Your task to perform on an android device: check the backup settings in the google photos Image 0: 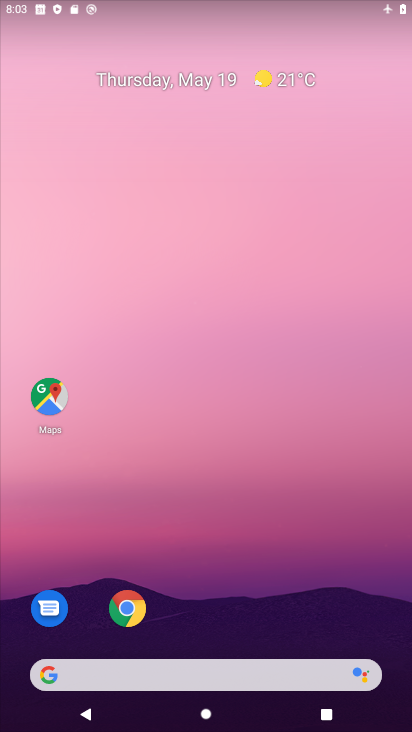
Step 0: drag from (198, 533) to (138, 131)
Your task to perform on an android device: check the backup settings in the google photos Image 1: 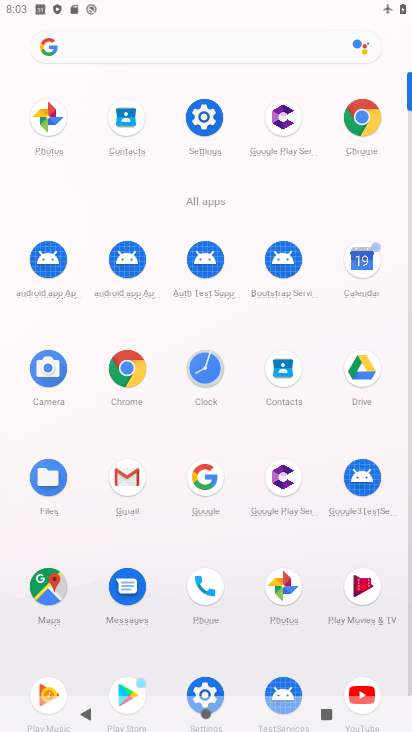
Step 1: click (46, 115)
Your task to perform on an android device: check the backup settings in the google photos Image 2: 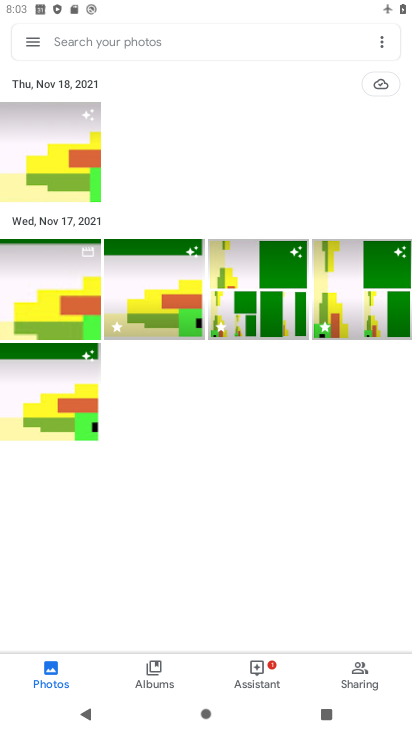
Step 2: click (29, 35)
Your task to perform on an android device: check the backup settings in the google photos Image 3: 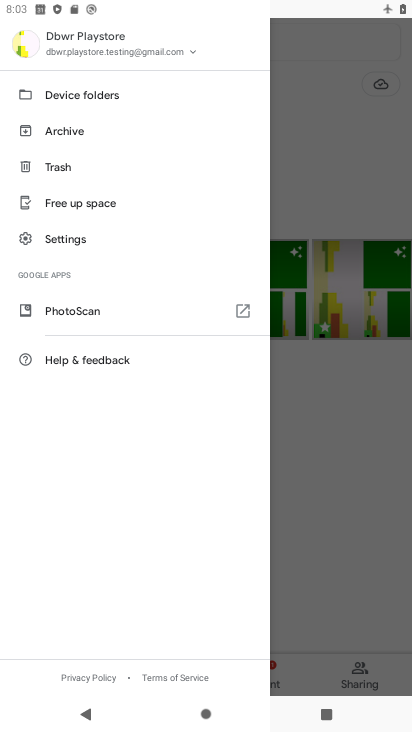
Step 3: click (63, 236)
Your task to perform on an android device: check the backup settings in the google photos Image 4: 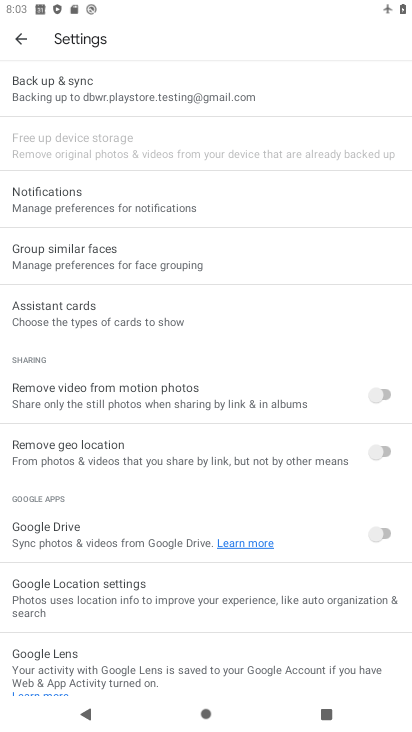
Step 4: click (46, 75)
Your task to perform on an android device: check the backup settings in the google photos Image 5: 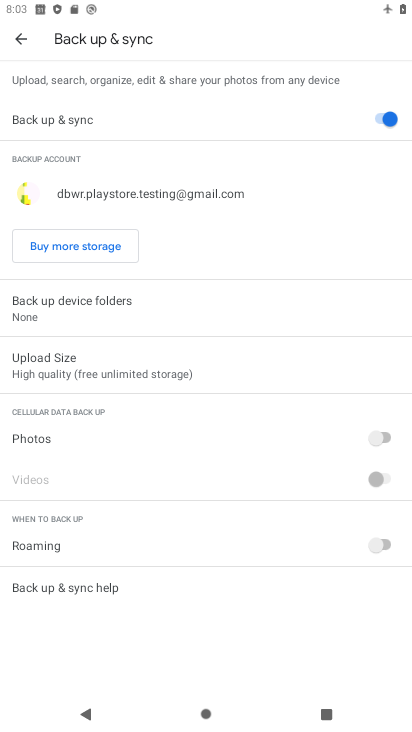
Step 5: click (93, 113)
Your task to perform on an android device: check the backup settings in the google photos Image 6: 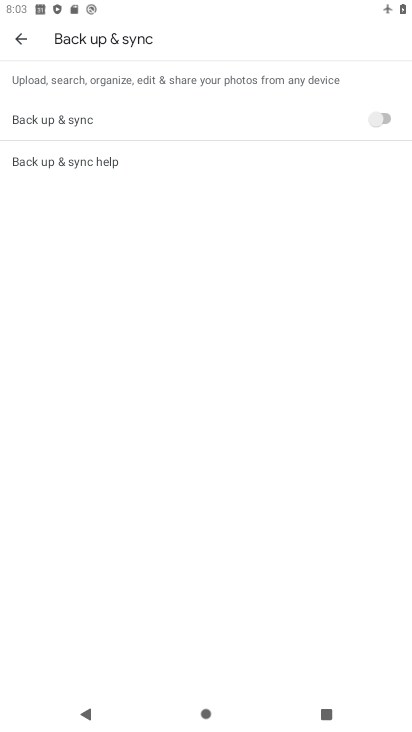
Step 6: task complete